Your task to perform on an android device: change the clock display to show seconds Image 0: 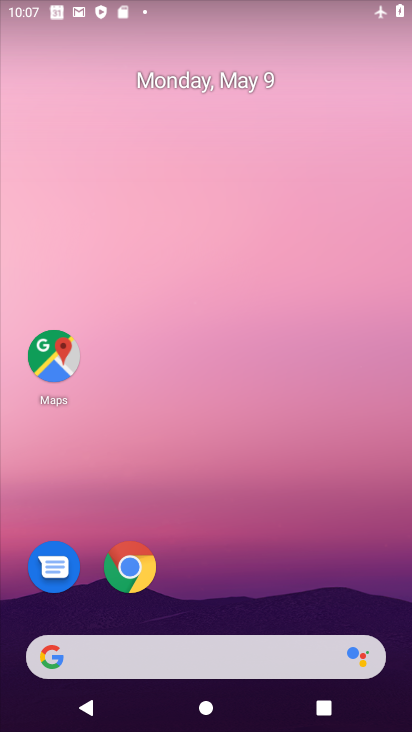
Step 0: drag from (204, 585) to (207, 167)
Your task to perform on an android device: change the clock display to show seconds Image 1: 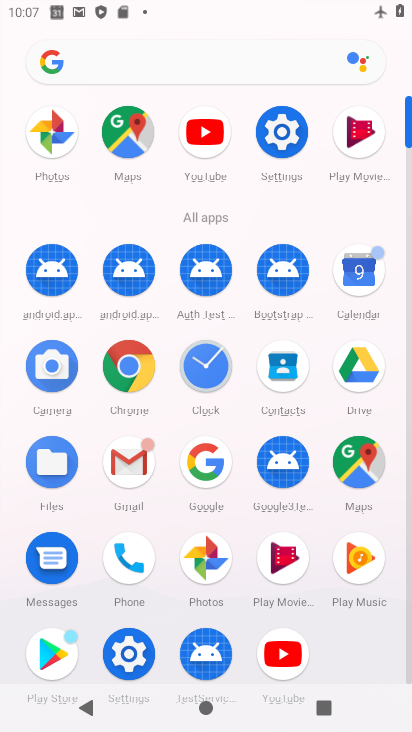
Step 1: click (209, 361)
Your task to perform on an android device: change the clock display to show seconds Image 2: 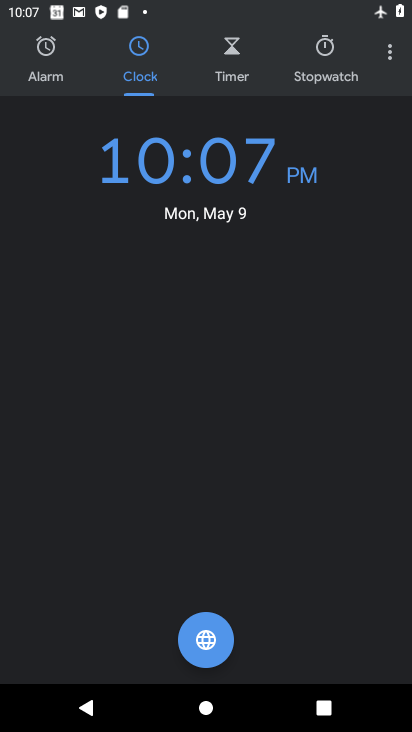
Step 2: click (384, 66)
Your task to perform on an android device: change the clock display to show seconds Image 3: 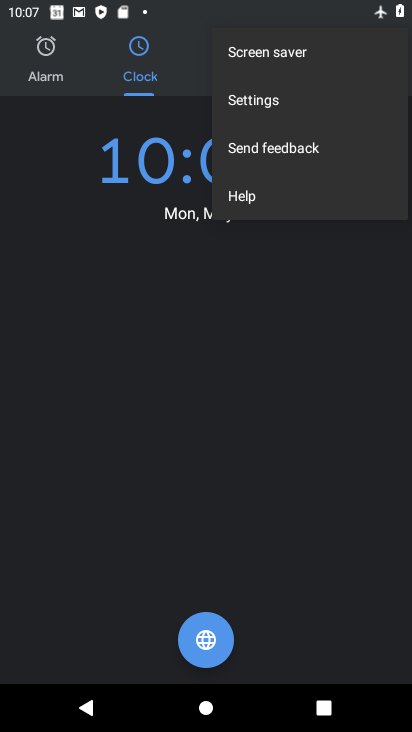
Step 3: click (323, 103)
Your task to perform on an android device: change the clock display to show seconds Image 4: 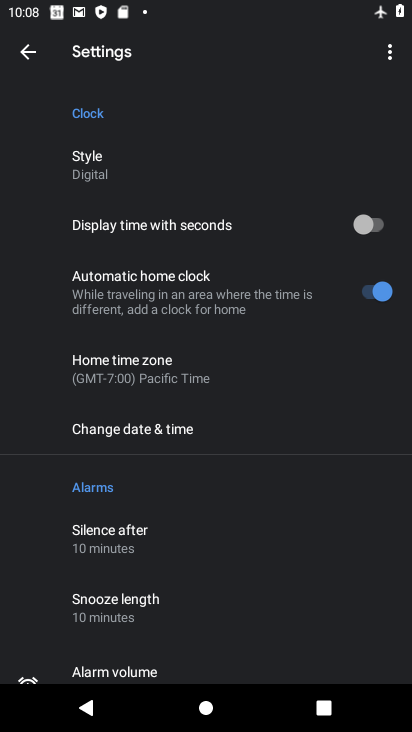
Step 4: click (381, 231)
Your task to perform on an android device: change the clock display to show seconds Image 5: 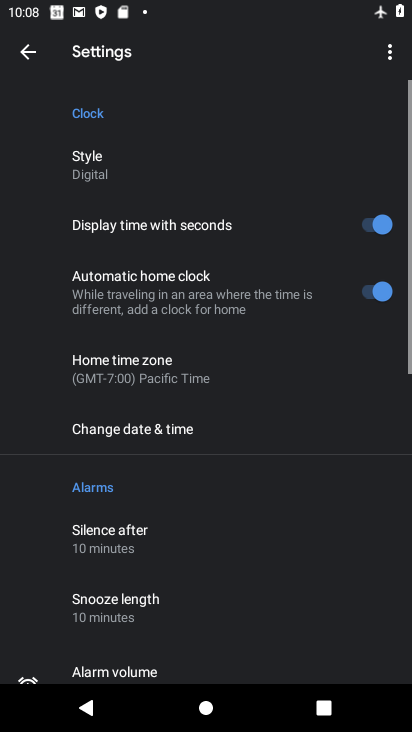
Step 5: task complete